Your task to perform on an android device: Open Google Maps and go to "Timeline" Image 0: 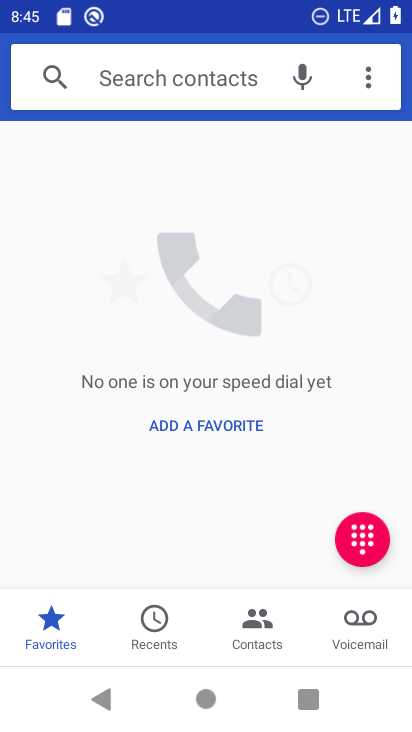
Step 0: press home button
Your task to perform on an android device: Open Google Maps and go to "Timeline" Image 1: 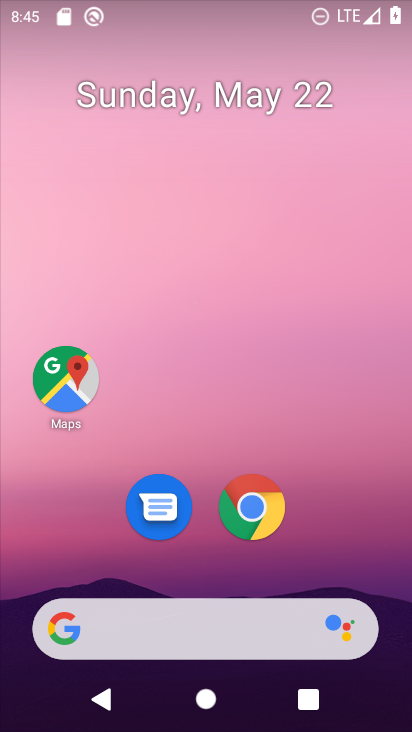
Step 1: click (69, 385)
Your task to perform on an android device: Open Google Maps and go to "Timeline" Image 2: 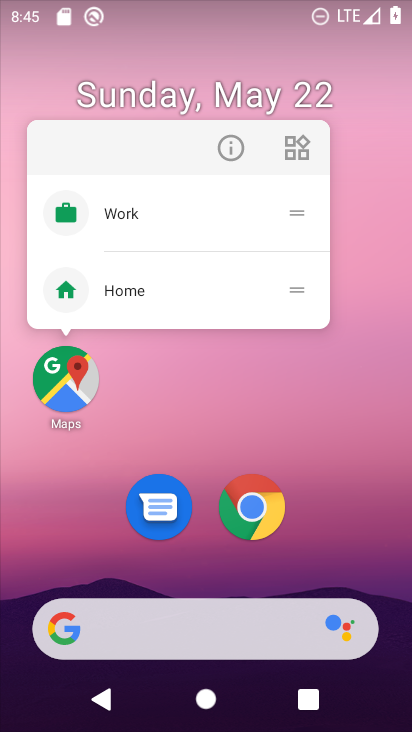
Step 2: click (68, 384)
Your task to perform on an android device: Open Google Maps and go to "Timeline" Image 3: 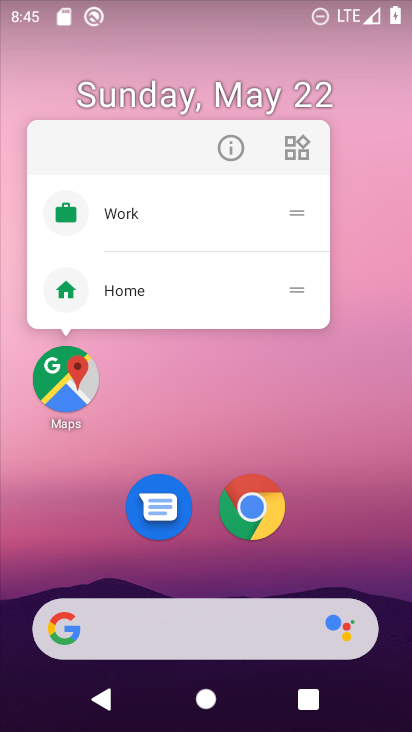
Step 3: click (68, 384)
Your task to perform on an android device: Open Google Maps and go to "Timeline" Image 4: 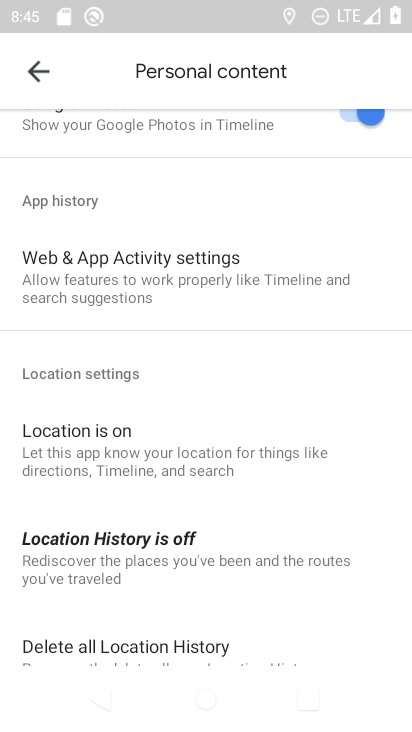
Step 4: click (36, 64)
Your task to perform on an android device: Open Google Maps and go to "Timeline" Image 5: 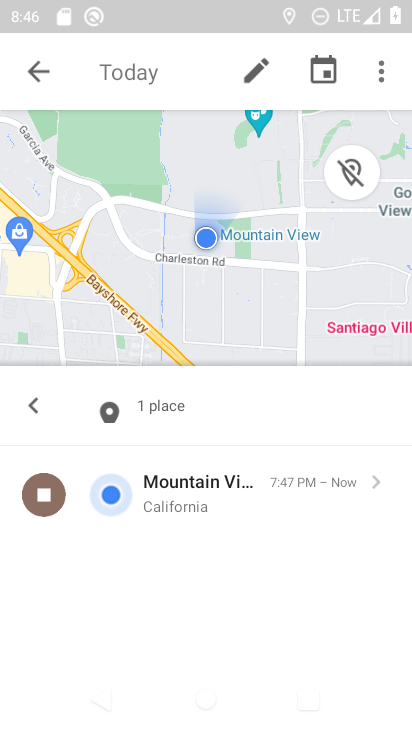
Step 5: task complete